Your task to perform on an android device: see tabs open on other devices in the chrome app Image 0: 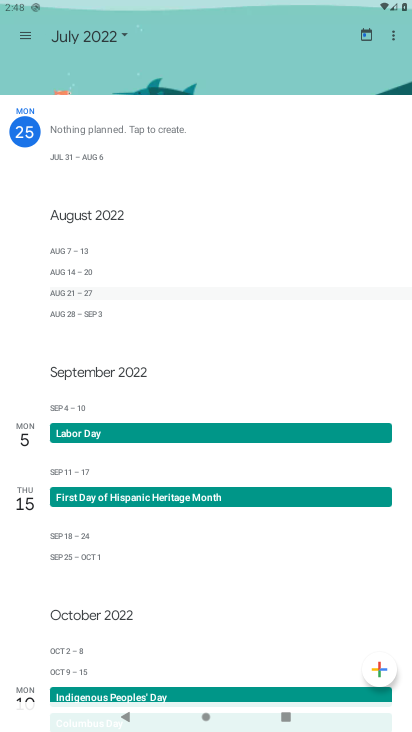
Step 0: press home button
Your task to perform on an android device: see tabs open on other devices in the chrome app Image 1: 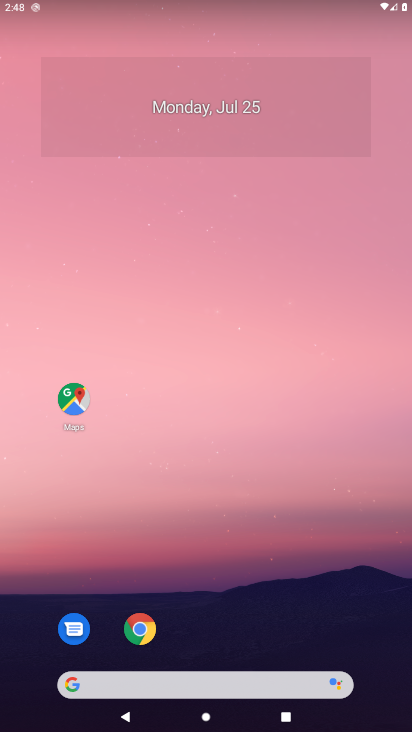
Step 1: click (136, 626)
Your task to perform on an android device: see tabs open on other devices in the chrome app Image 2: 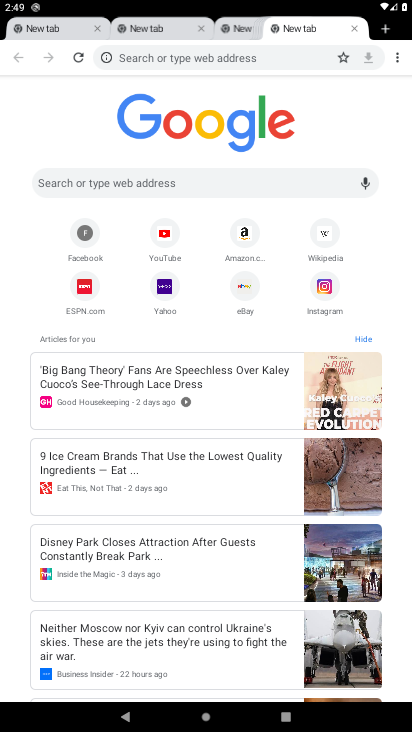
Step 2: task complete